Your task to perform on an android device: turn off priority inbox in the gmail app Image 0: 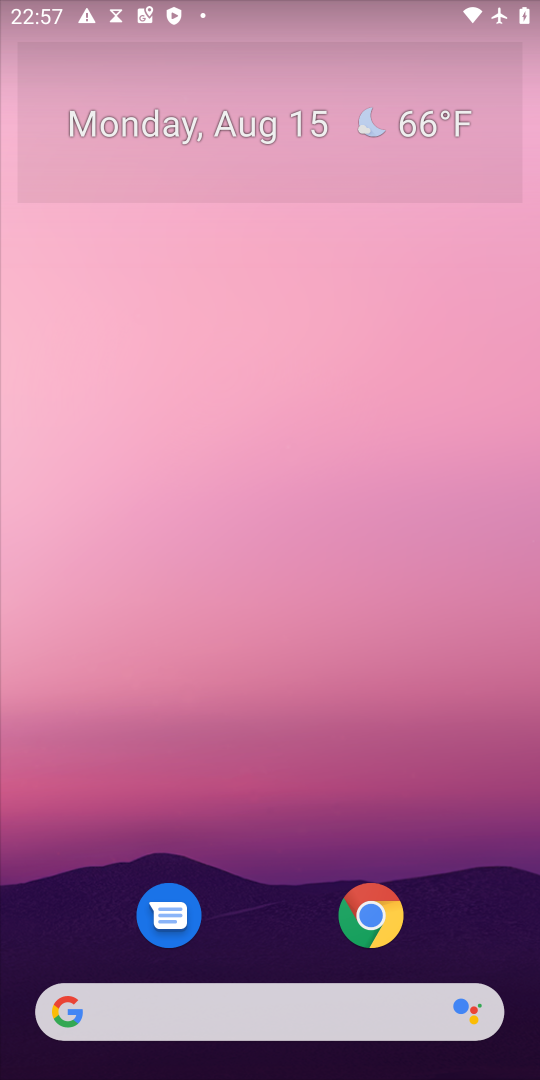
Step 0: press home button
Your task to perform on an android device: turn off priority inbox in the gmail app Image 1: 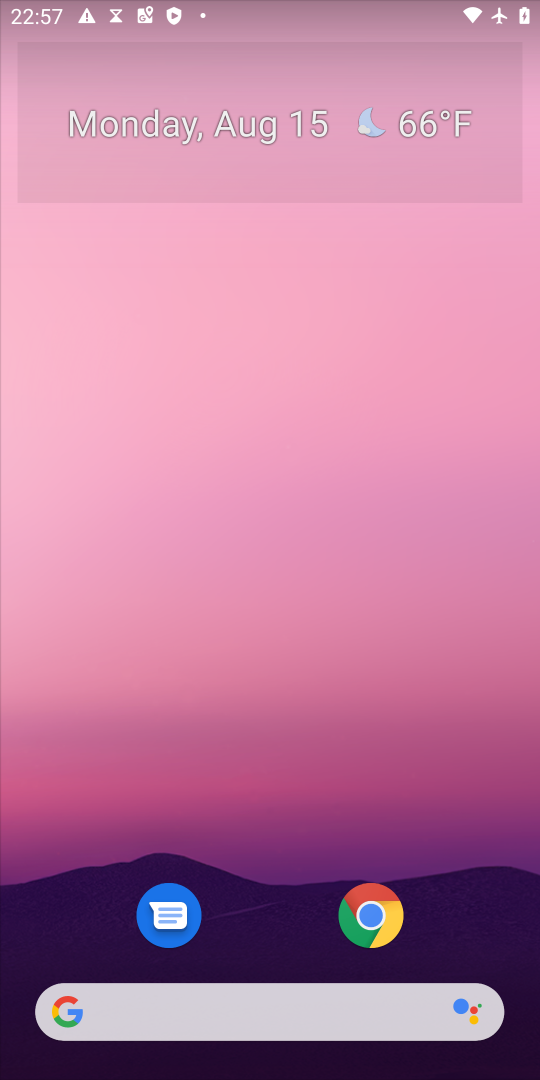
Step 1: drag from (286, 776) to (388, 263)
Your task to perform on an android device: turn off priority inbox in the gmail app Image 2: 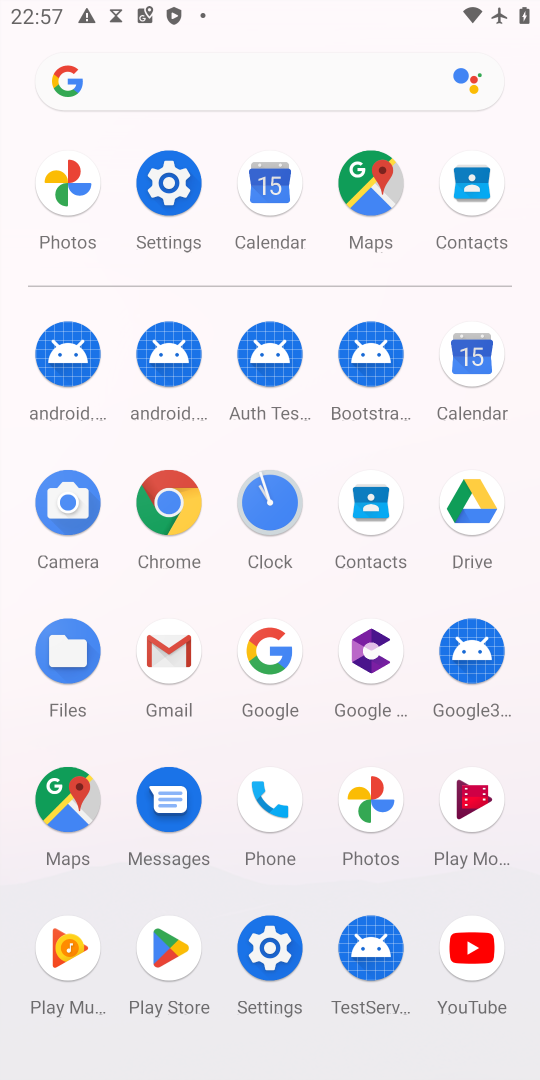
Step 2: click (174, 660)
Your task to perform on an android device: turn off priority inbox in the gmail app Image 3: 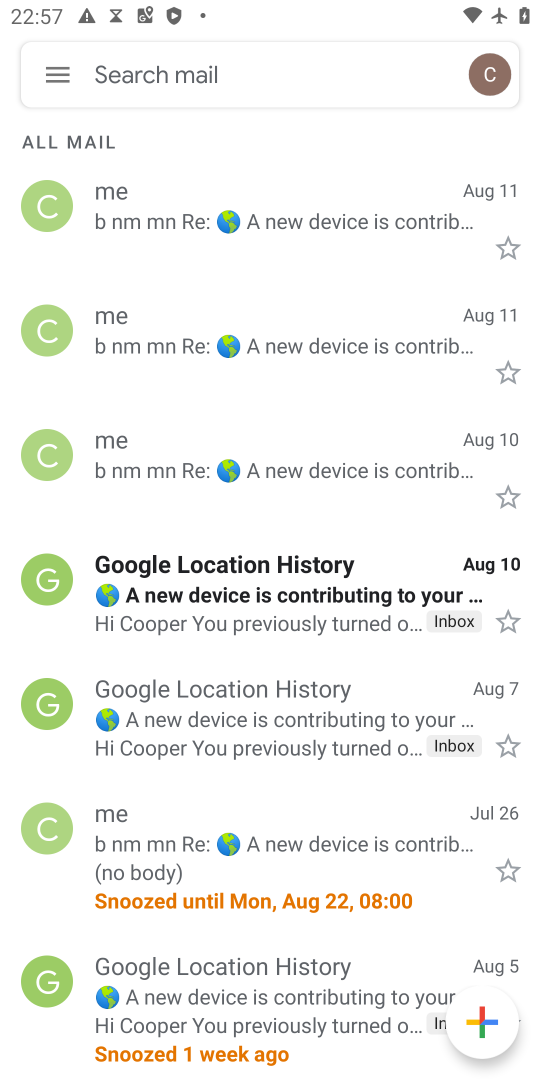
Step 3: drag from (57, 80) to (120, 51)
Your task to perform on an android device: turn off priority inbox in the gmail app Image 4: 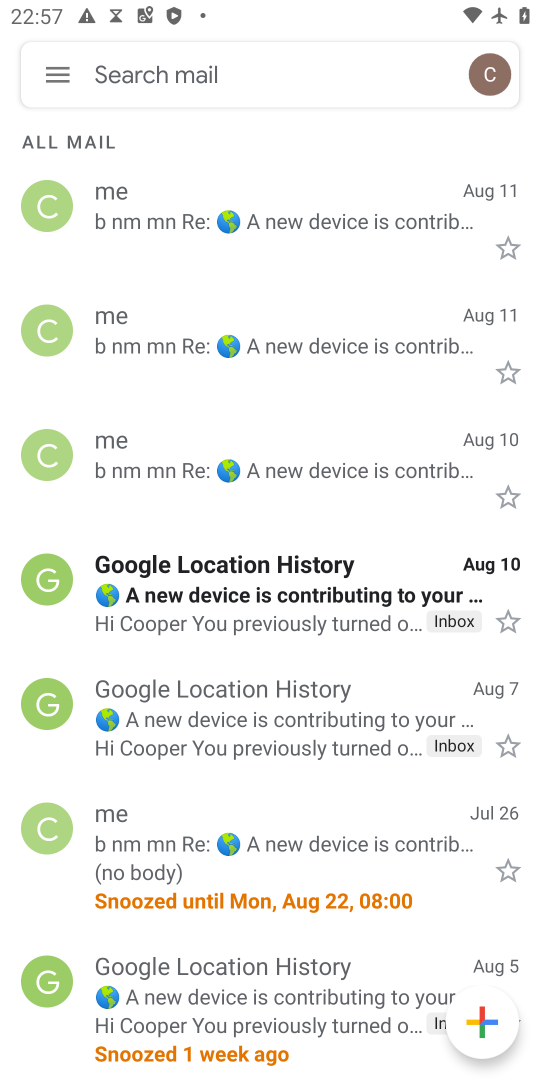
Step 4: click (59, 75)
Your task to perform on an android device: turn off priority inbox in the gmail app Image 5: 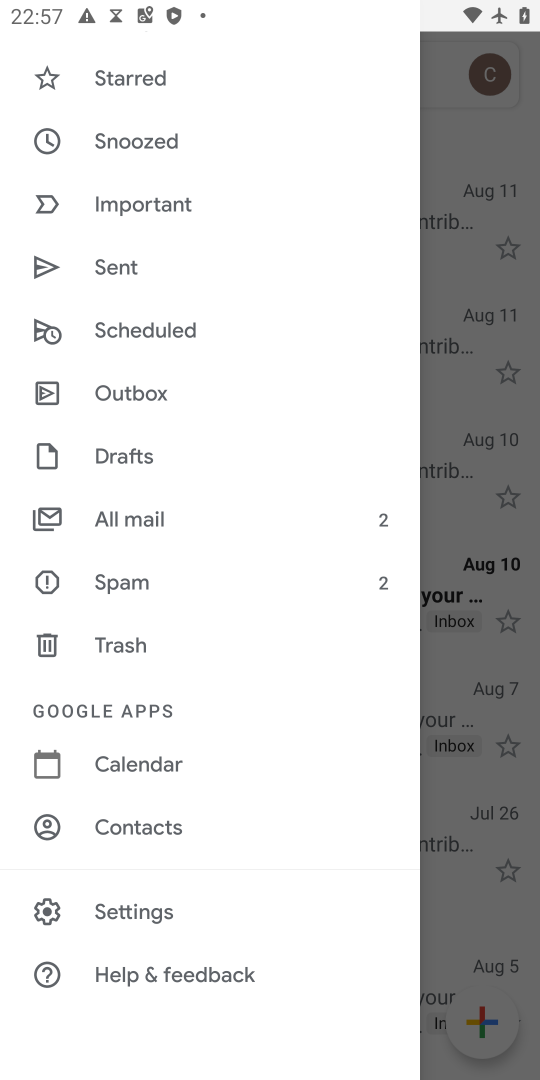
Step 5: click (137, 914)
Your task to perform on an android device: turn off priority inbox in the gmail app Image 6: 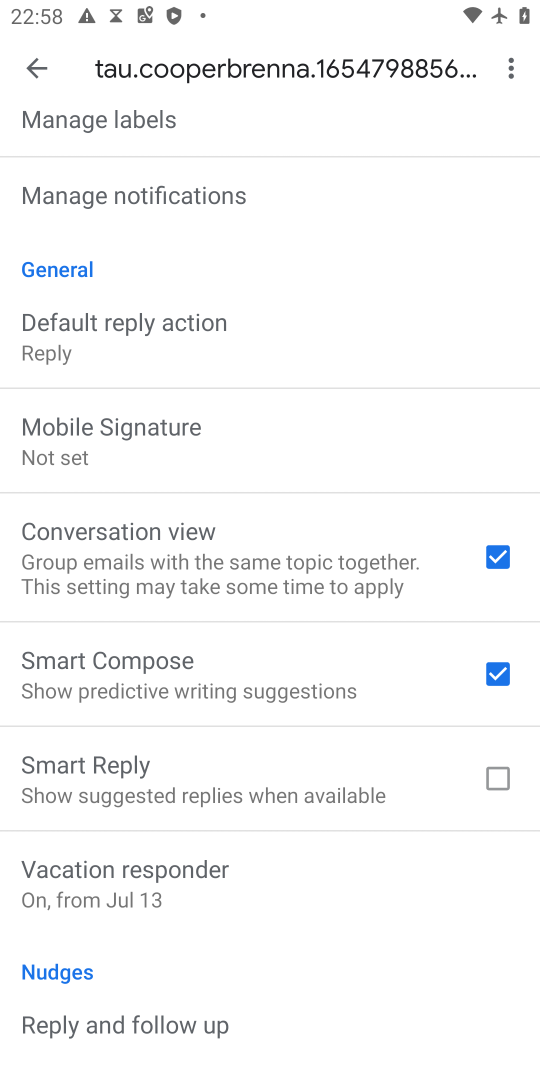
Step 6: drag from (324, 262) to (455, 1044)
Your task to perform on an android device: turn off priority inbox in the gmail app Image 7: 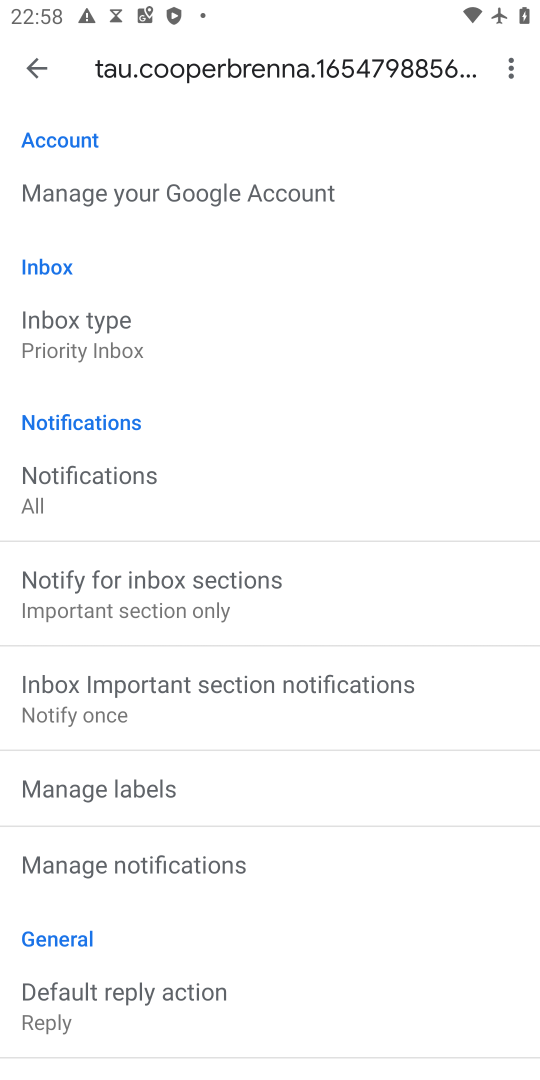
Step 7: click (92, 343)
Your task to perform on an android device: turn off priority inbox in the gmail app Image 8: 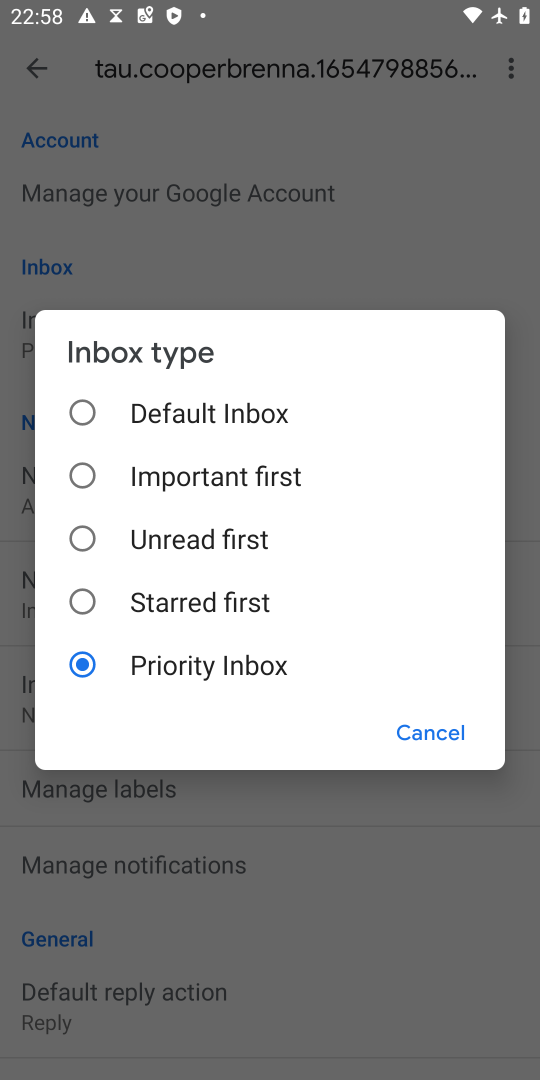
Step 8: click (87, 410)
Your task to perform on an android device: turn off priority inbox in the gmail app Image 9: 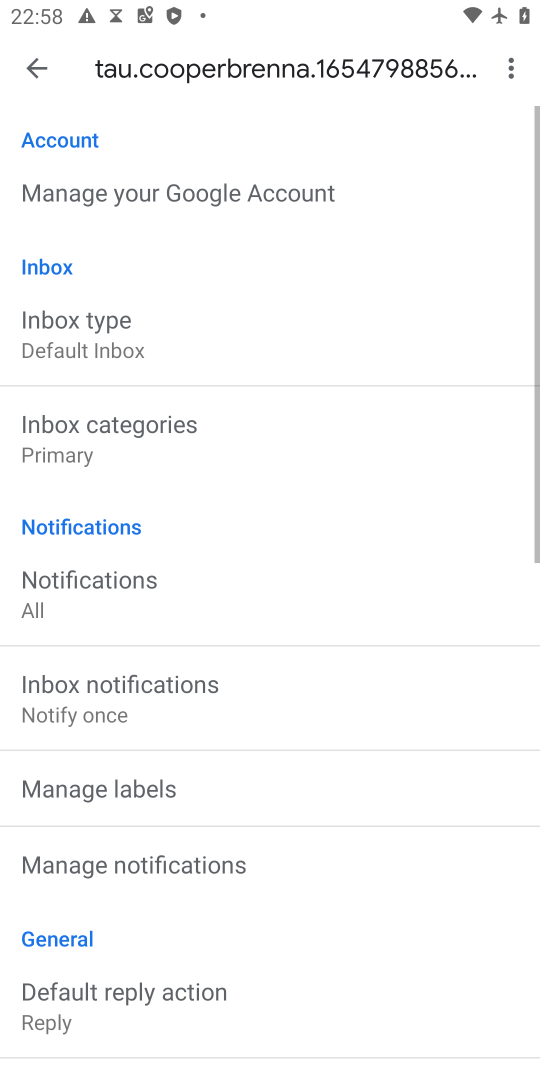
Step 9: task complete